Your task to perform on an android device: Set the phone to "Do not disturb". Image 0: 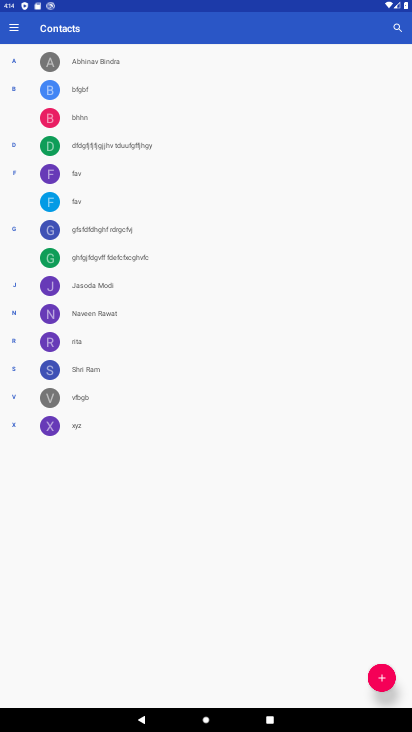
Step 0: press home button
Your task to perform on an android device: Set the phone to "Do not disturb". Image 1: 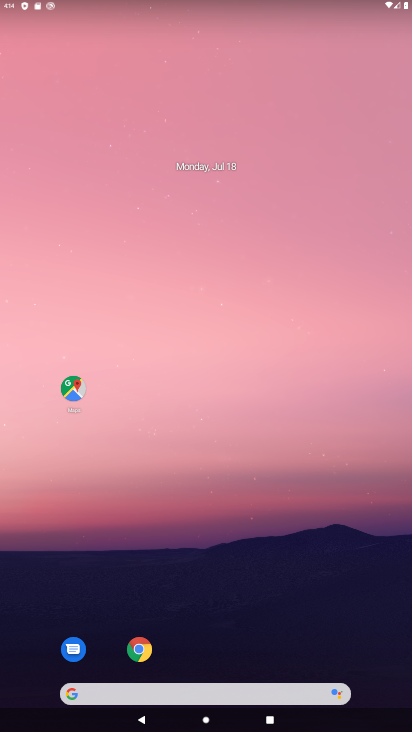
Step 1: drag from (193, 681) to (231, 139)
Your task to perform on an android device: Set the phone to "Do not disturb". Image 2: 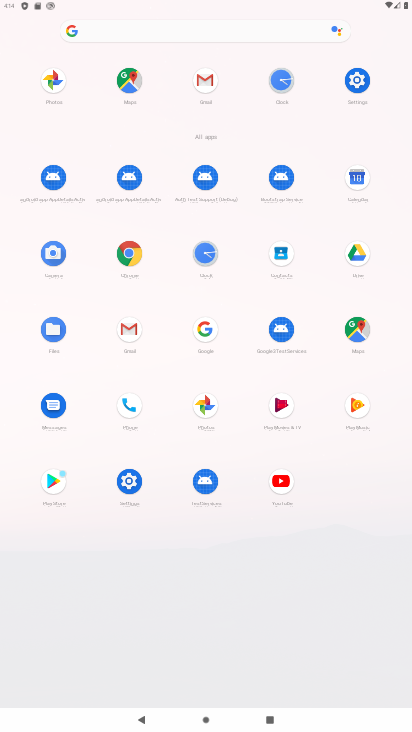
Step 2: click (133, 475)
Your task to perform on an android device: Set the phone to "Do not disturb". Image 3: 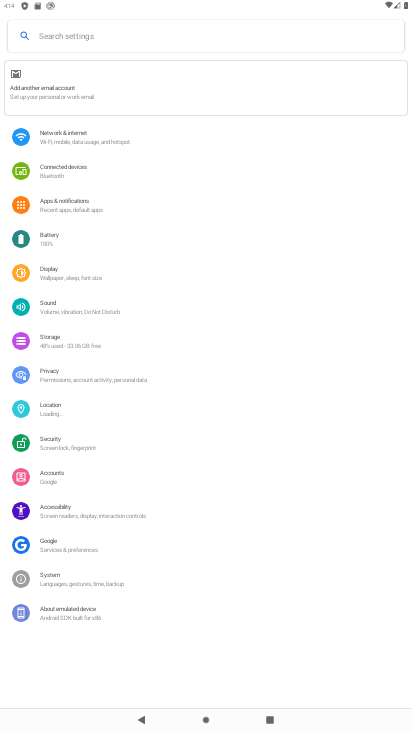
Step 3: click (112, 208)
Your task to perform on an android device: Set the phone to "Do not disturb". Image 4: 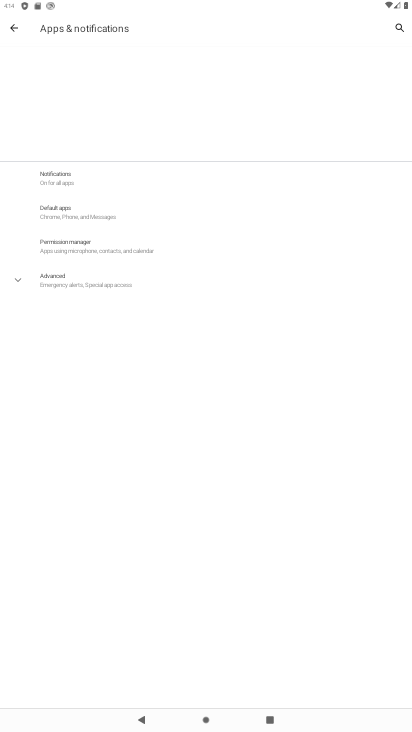
Step 4: click (118, 281)
Your task to perform on an android device: Set the phone to "Do not disturb". Image 5: 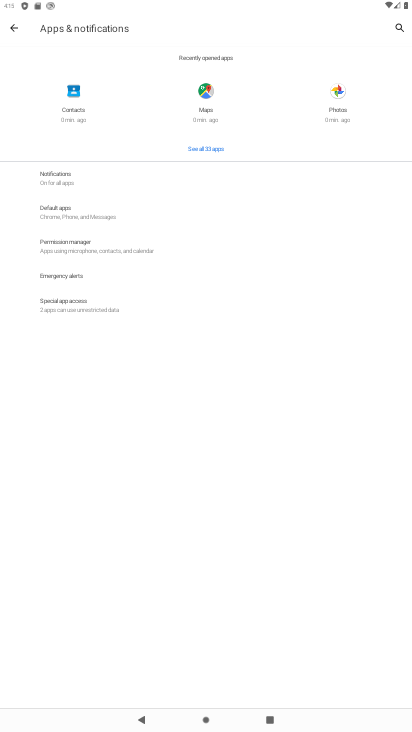
Step 5: click (94, 182)
Your task to perform on an android device: Set the phone to "Do not disturb". Image 6: 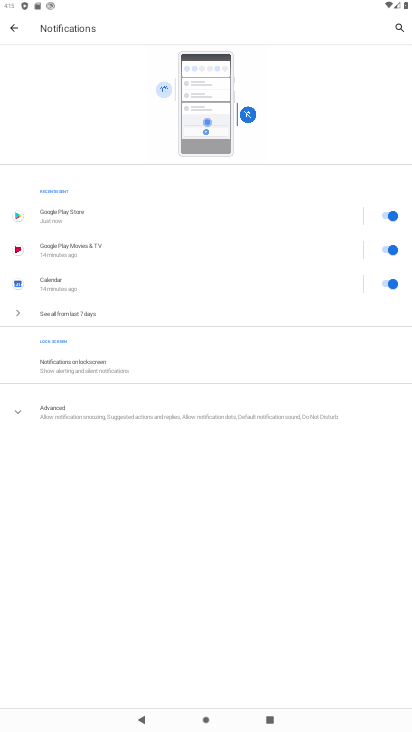
Step 6: click (220, 423)
Your task to perform on an android device: Set the phone to "Do not disturb". Image 7: 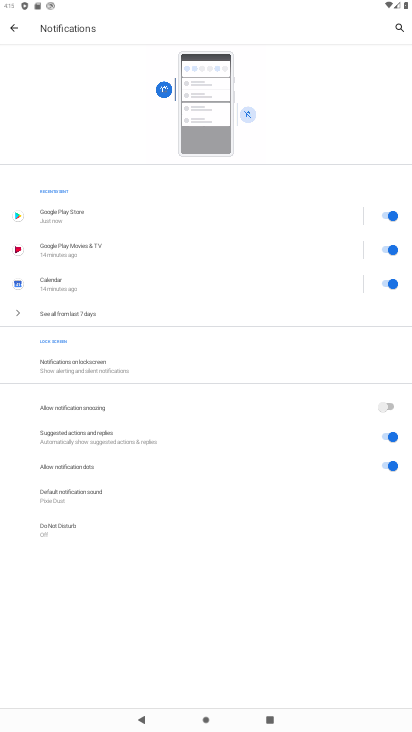
Step 7: click (192, 530)
Your task to perform on an android device: Set the phone to "Do not disturb". Image 8: 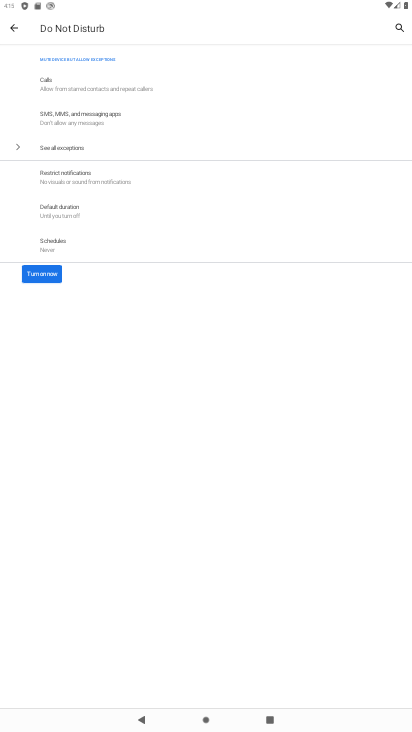
Step 8: click (44, 275)
Your task to perform on an android device: Set the phone to "Do not disturb". Image 9: 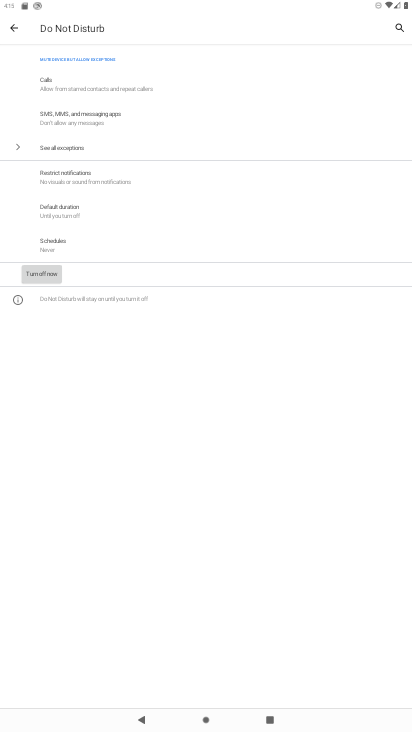
Step 9: click (152, 391)
Your task to perform on an android device: Set the phone to "Do not disturb". Image 10: 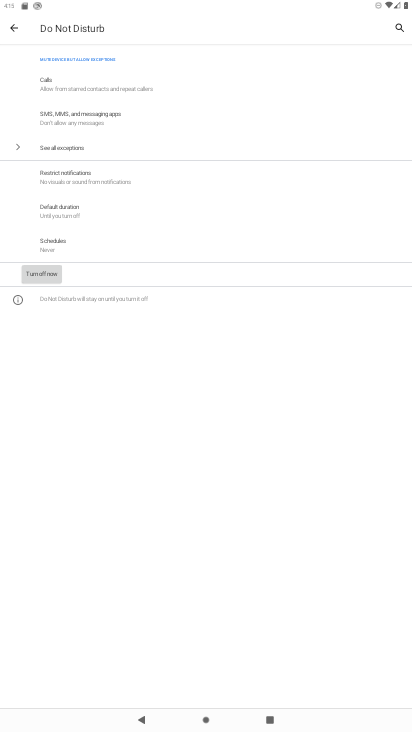
Step 10: task complete